Your task to perform on an android device: find snoozed emails in the gmail app Image 0: 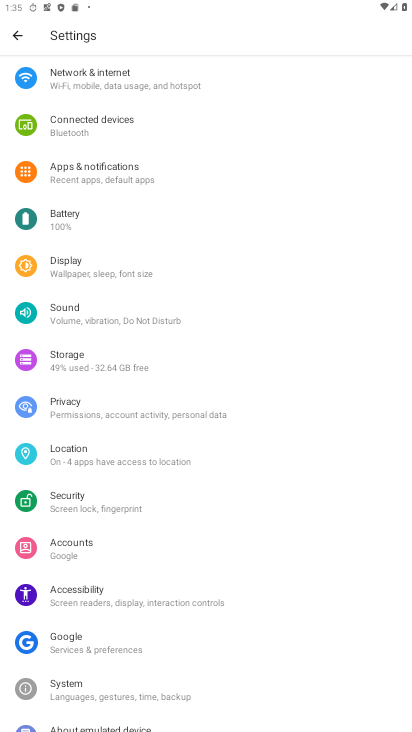
Step 0: press home button
Your task to perform on an android device: find snoozed emails in the gmail app Image 1: 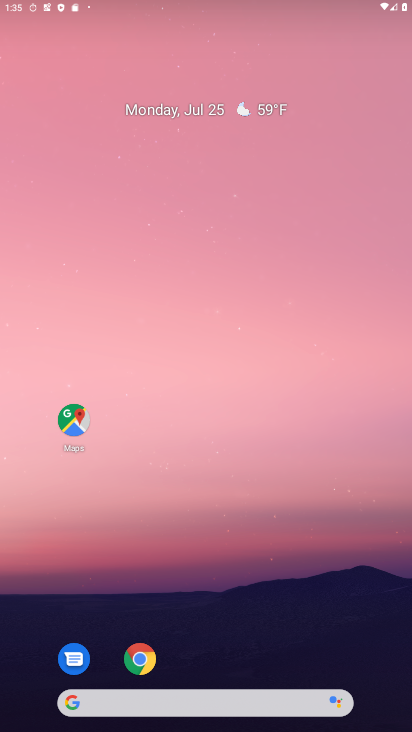
Step 1: drag from (202, 590) to (137, 38)
Your task to perform on an android device: find snoozed emails in the gmail app Image 2: 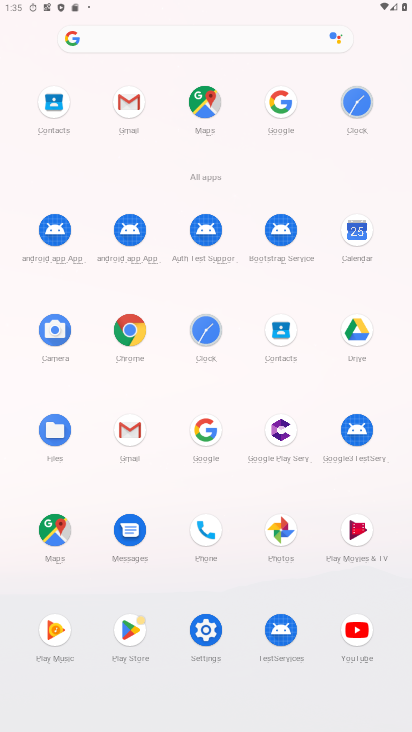
Step 2: click (125, 186)
Your task to perform on an android device: find snoozed emails in the gmail app Image 3: 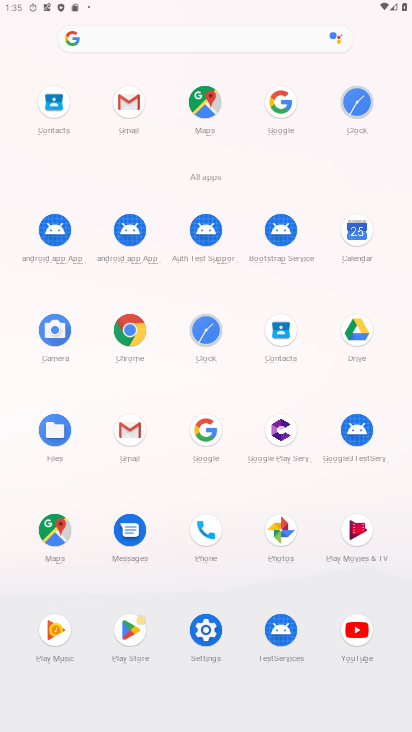
Step 3: click (132, 104)
Your task to perform on an android device: find snoozed emails in the gmail app Image 4: 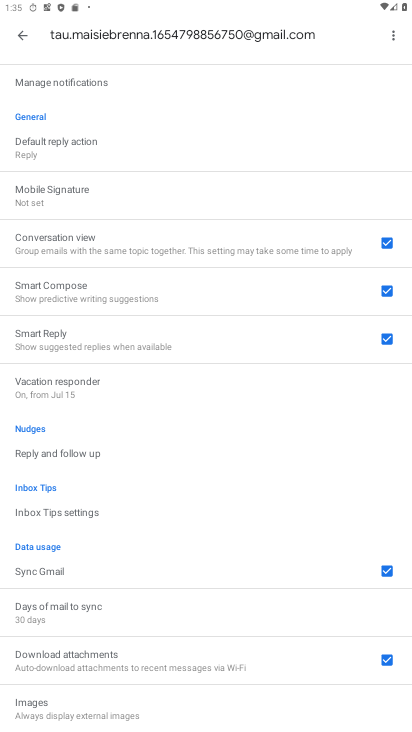
Step 4: click (17, 28)
Your task to perform on an android device: find snoozed emails in the gmail app Image 5: 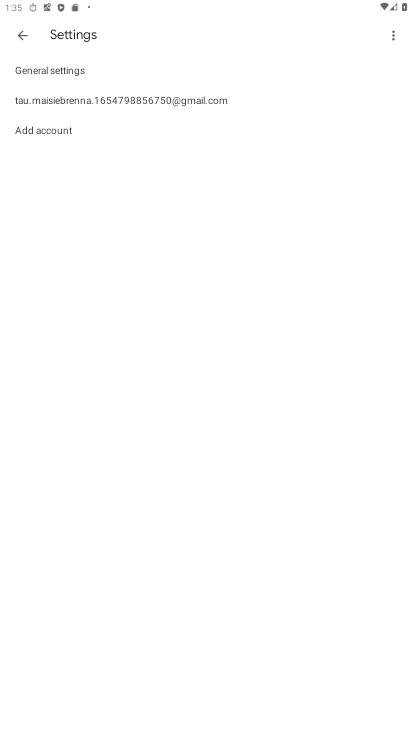
Step 5: click (17, 28)
Your task to perform on an android device: find snoozed emails in the gmail app Image 6: 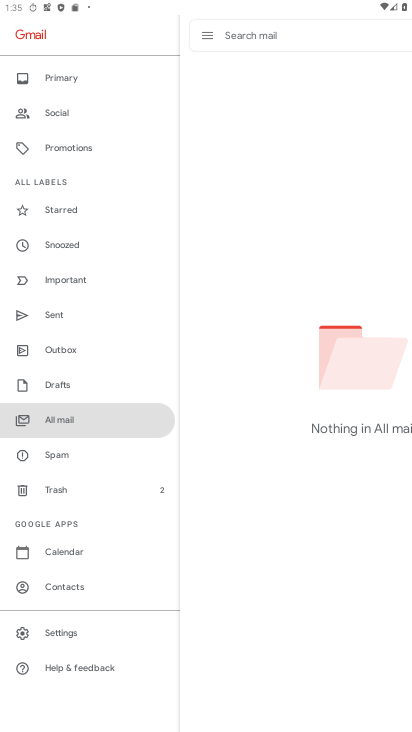
Step 6: click (63, 254)
Your task to perform on an android device: find snoozed emails in the gmail app Image 7: 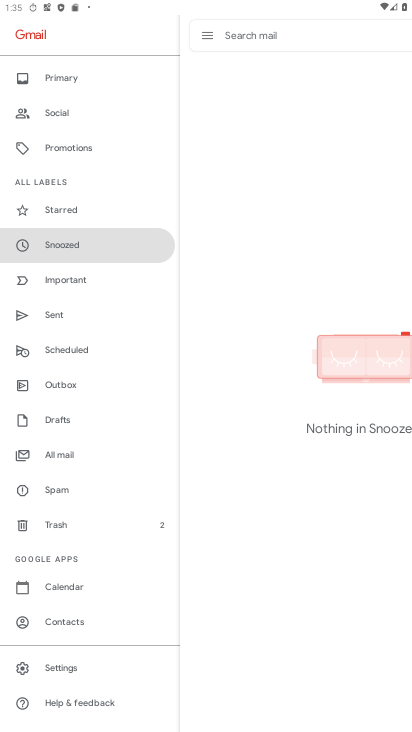
Step 7: task complete